Your task to perform on an android device: Do I have any events tomorrow? Image 0: 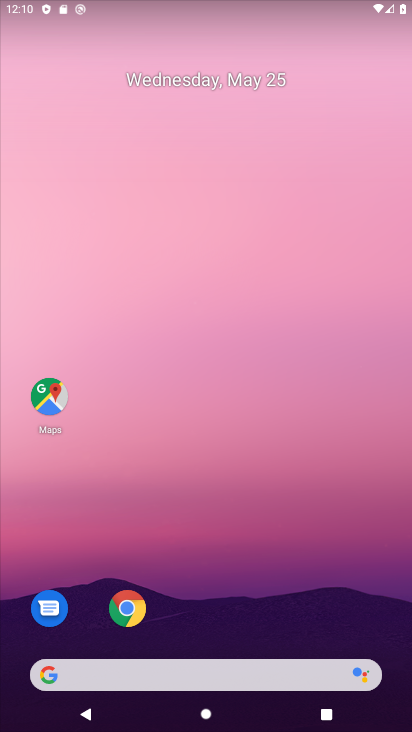
Step 0: drag from (298, 615) to (220, 14)
Your task to perform on an android device: Do I have any events tomorrow? Image 1: 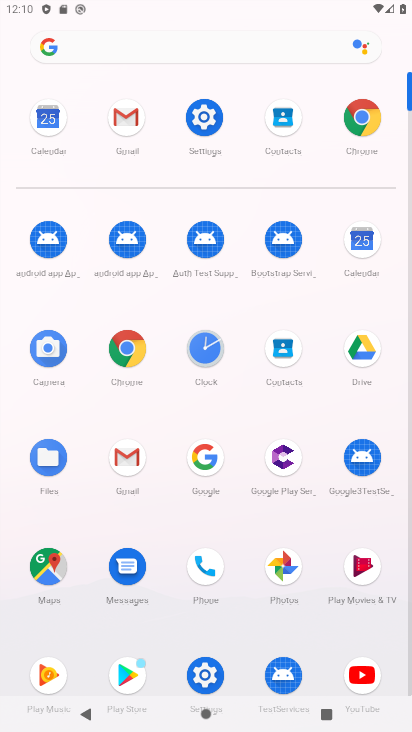
Step 1: click (62, 119)
Your task to perform on an android device: Do I have any events tomorrow? Image 2: 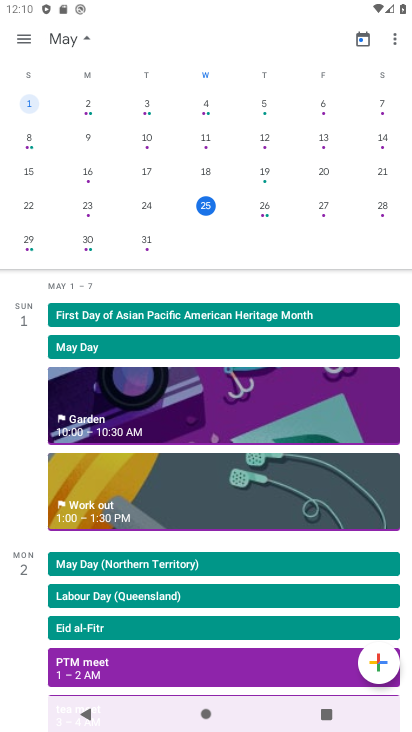
Step 2: task complete